Your task to perform on an android device: Open Youtube and go to the subscriptions tab Image 0: 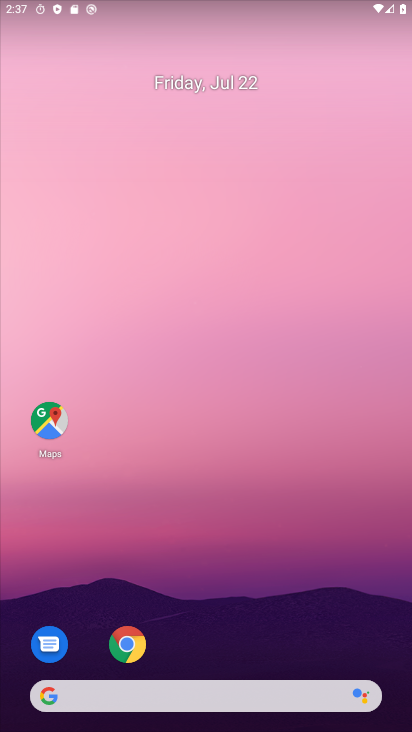
Step 0: press home button
Your task to perform on an android device: Open Youtube and go to the subscriptions tab Image 1: 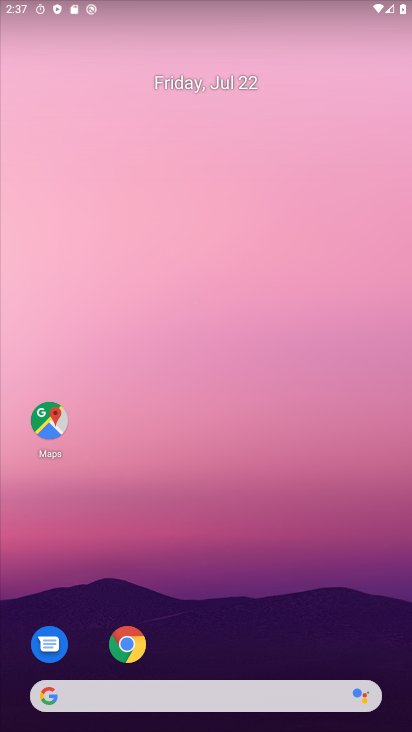
Step 1: drag from (230, 633) to (314, 166)
Your task to perform on an android device: Open Youtube and go to the subscriptions tab Image 2: 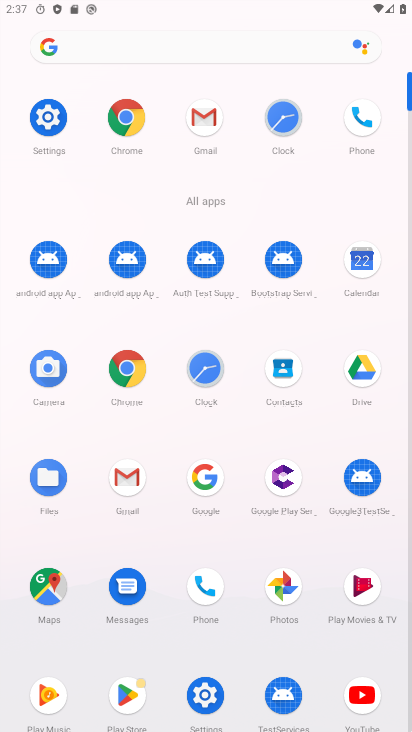
Step 2: click (358, 702)
Your task to perform on an android device: Open Youtube and go to the subscriptions tab Image 3: 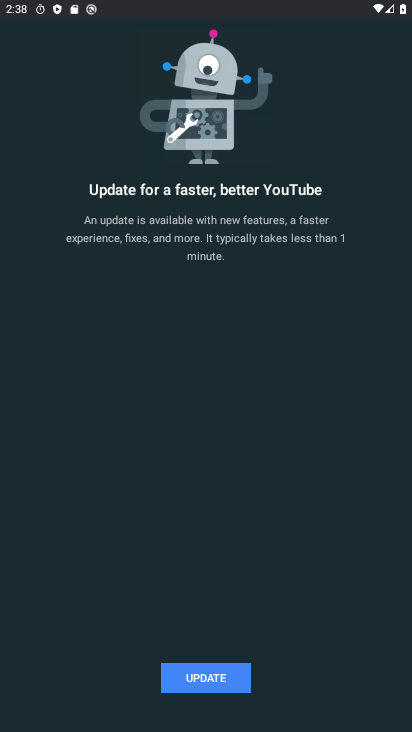
Step 3: click (217, 690)
Your task to perform on an android device: Open Youtube and go to the subscriptions tab Image 4: 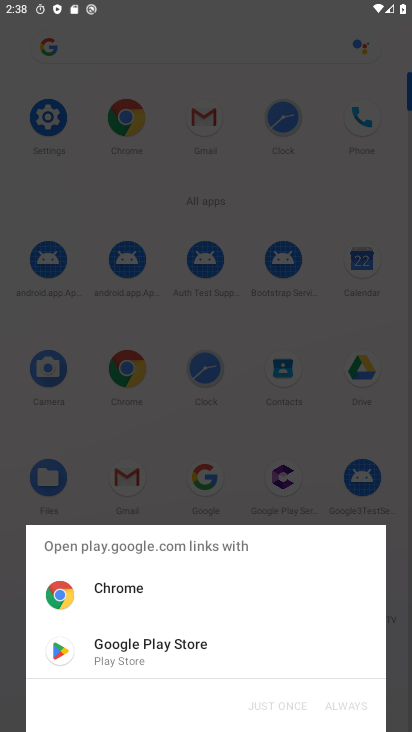
Step 4: click (110, 652)
Your task to perform on an android device: Open Youtube and go to the subscriptions tab Image 5: 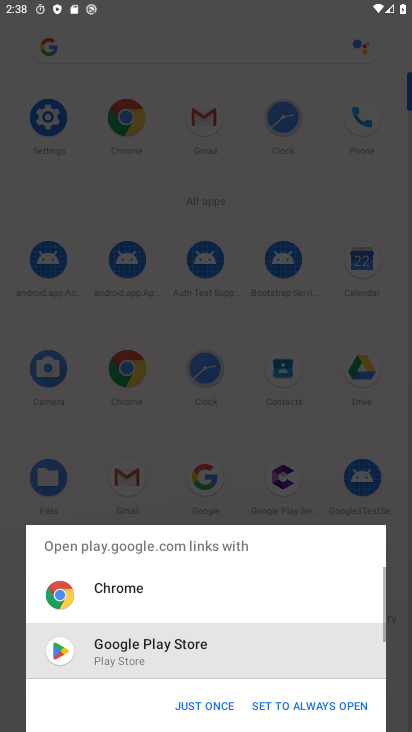
Step 5: click (201, 701)
Your task to perform on an android device: Open Youtube and go to the subscriptions tab Image 6: 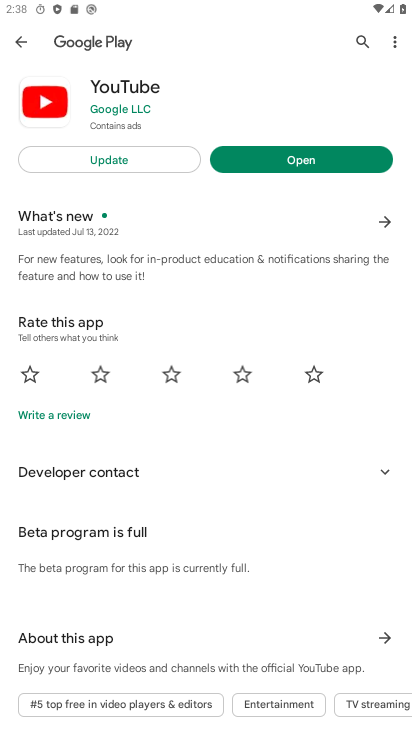
Step 6: click (138, 156)
Your task to perform on an android device: Open Youtube and go to the subscriptions tab Image 7: 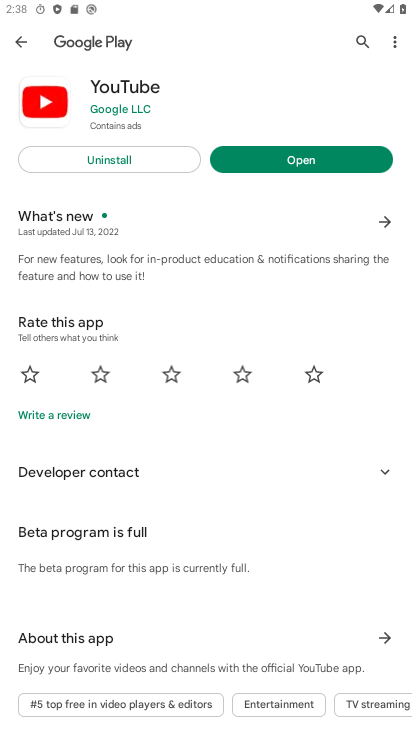
Step 7: click (266, 159)
Your task to perform on an android device: Open Youtube and go to the subscriptions tab Image 8: 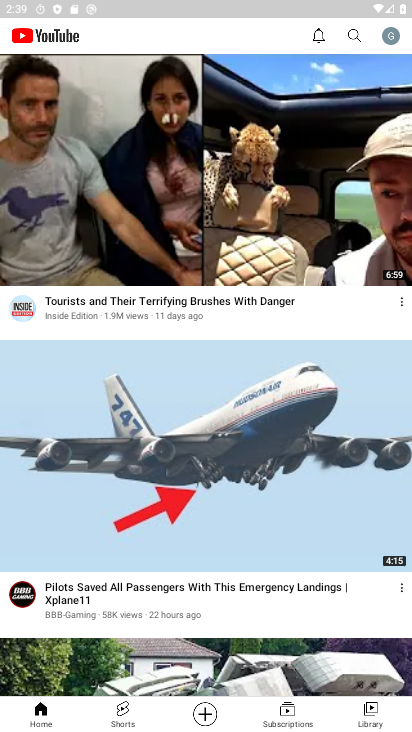
Step 8: click (285, 715)
Your task to perform on an android device: Open Youtube and go to the subscriptions tab Image 9: 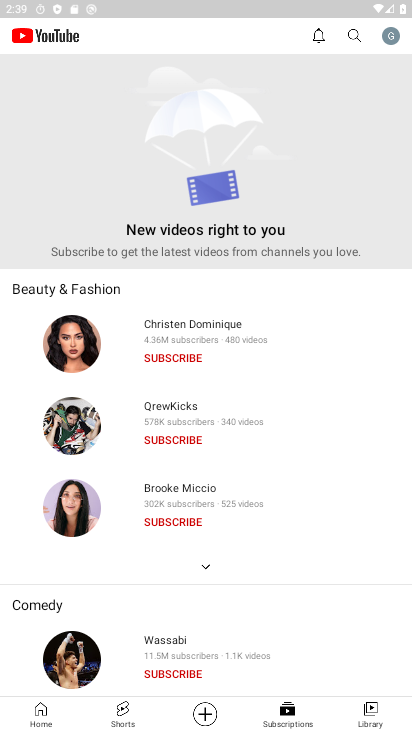
Step 9: task complete